Your task to perform on an android device: Open the Play Movies app and select the watchlist tab. Image 0: 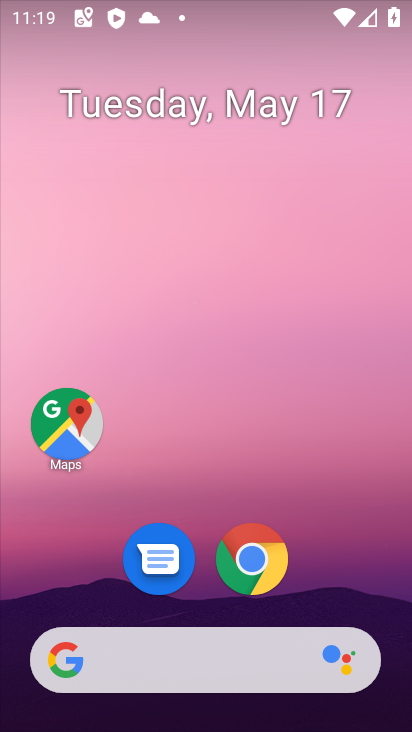
Step 0: drag from (274, 688) to (356, 125)
Your task to perform on an android device: Open the Play Movies app and select the watchlist tab. Image 1: 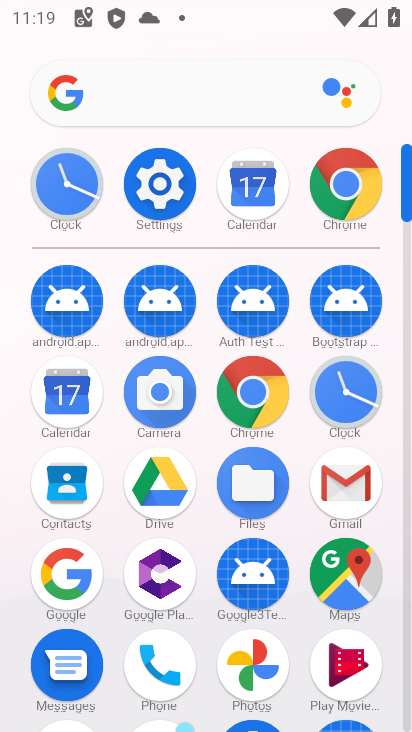
Step 1: drag from (291, 659) to (310, 241)
Your task to perform on an android device: Open the Play Movies app and select the watchlist tab. Image 2: 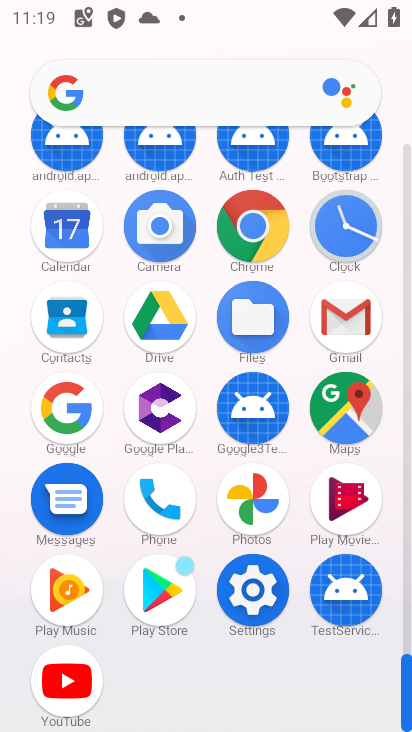
Step 2: click (329, 504)
Your task to perform on an android device: Open the Play Movies app and select the watchlist tab. Image 3: 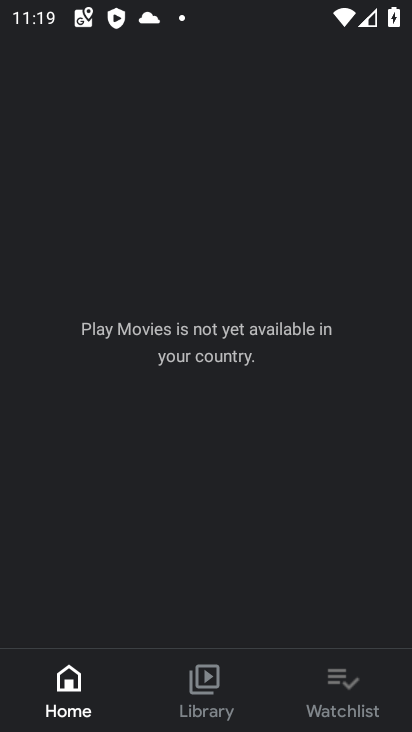
Step 3: click (345, 691)
Your task to perform on an android device: Open the Play Movies app and select the watchlist tab. Image 4: 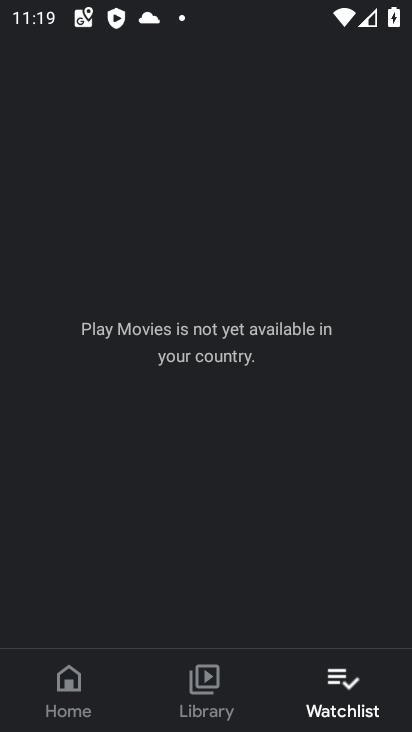
Step 4: task complete